Your task to perform on an android device: Add razer huntsman to the cart on costco, then select checkout. Image 0: 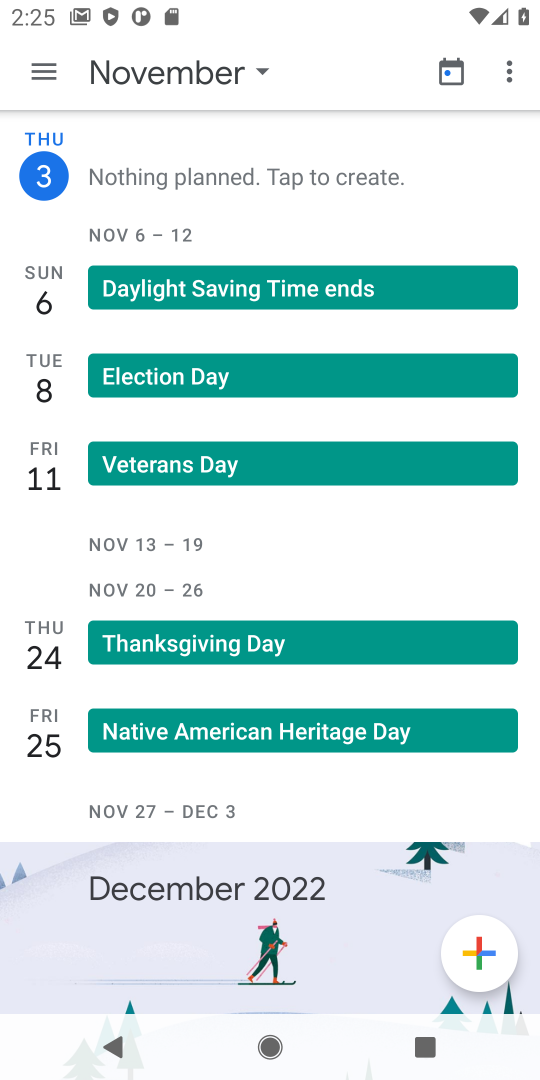
Step 0: press home button
Your task to perform on an android device: Add razer huntsman to the cart on costco, then select checkout. Image 1: 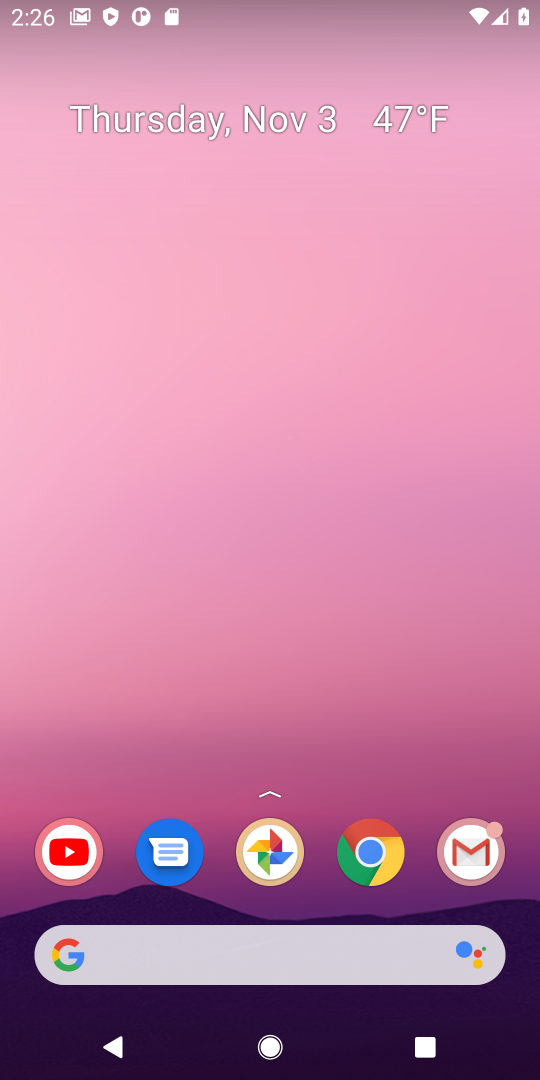
Step 1: click (364, 862)
Your task to perform on an android device: Add razer huntsman to the cart on costco, then select checkout. Image 2: 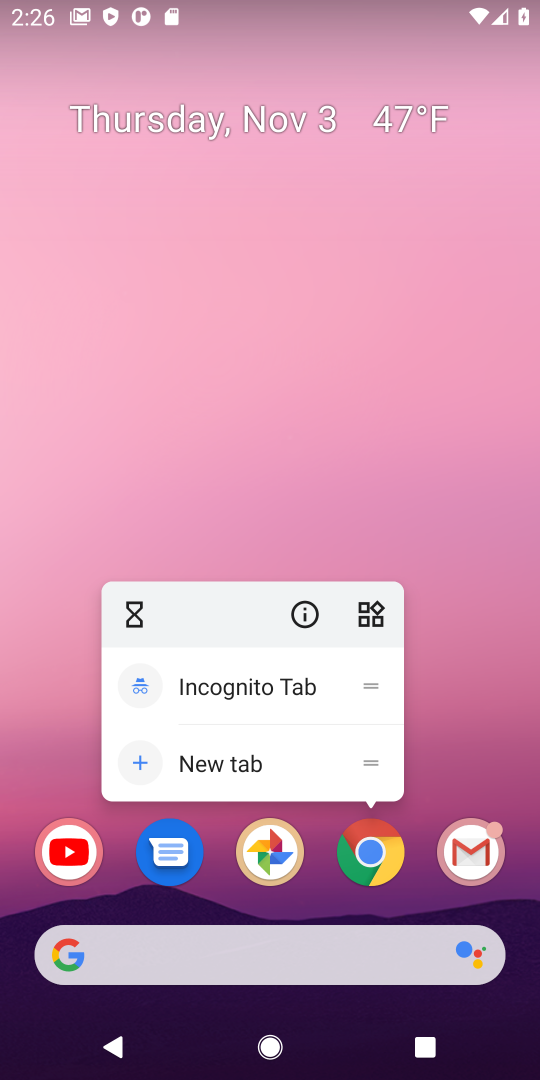
Step 2: click (383, 867)
Your task to perform on an android device: Add razer huntsman to the cart on costco, then select checkout. Image 3: 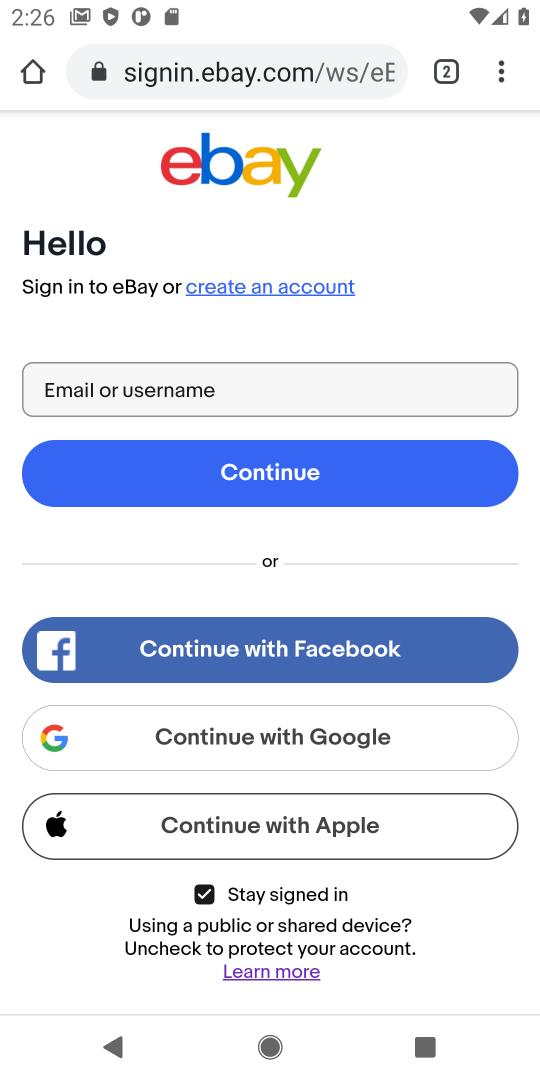
Step 3: click (219, 85)
Your task to perform on an android device: Add razer huntsman to the cart on costco, then select checkout. Image 4: 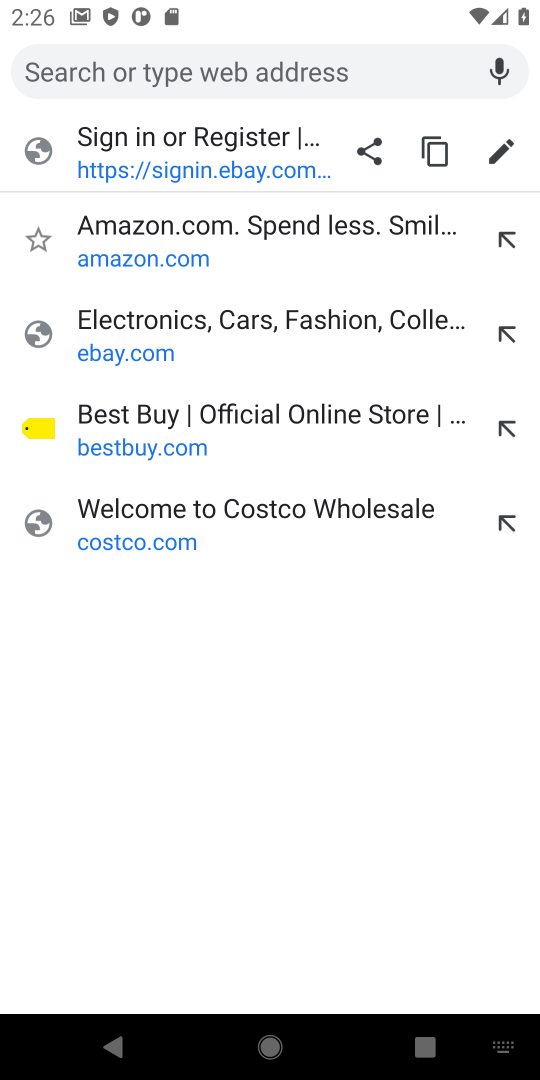
Step 4: click (123, 550)
Your task to perform on an android device: Add razer huntsman to the cart on costco, then select checkout. Image 5: 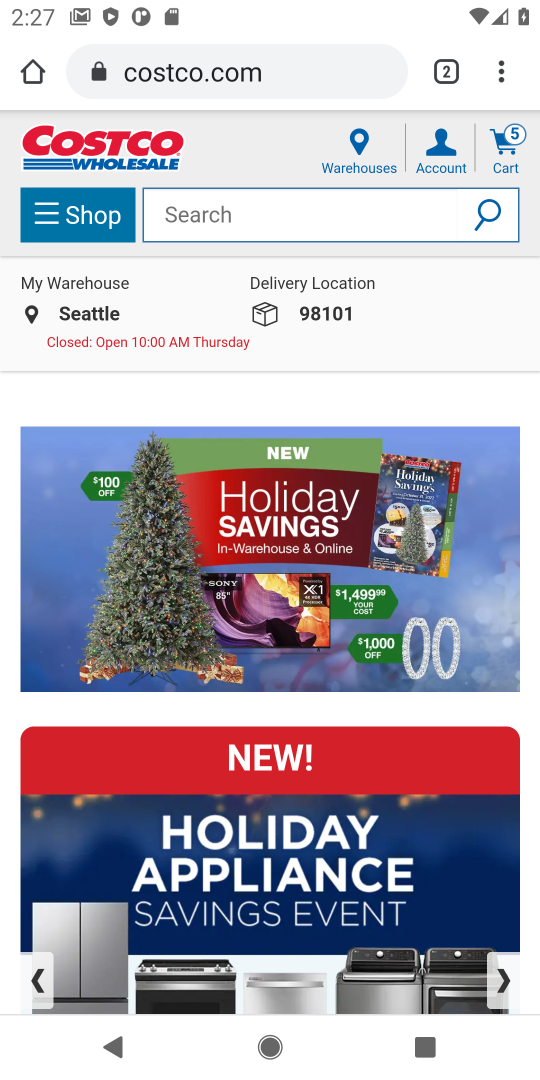
Step 5: click (202, 220)
Your task to perform on an android device: Add razer huntsman to the cart on costco, then select checkout. Image 6: 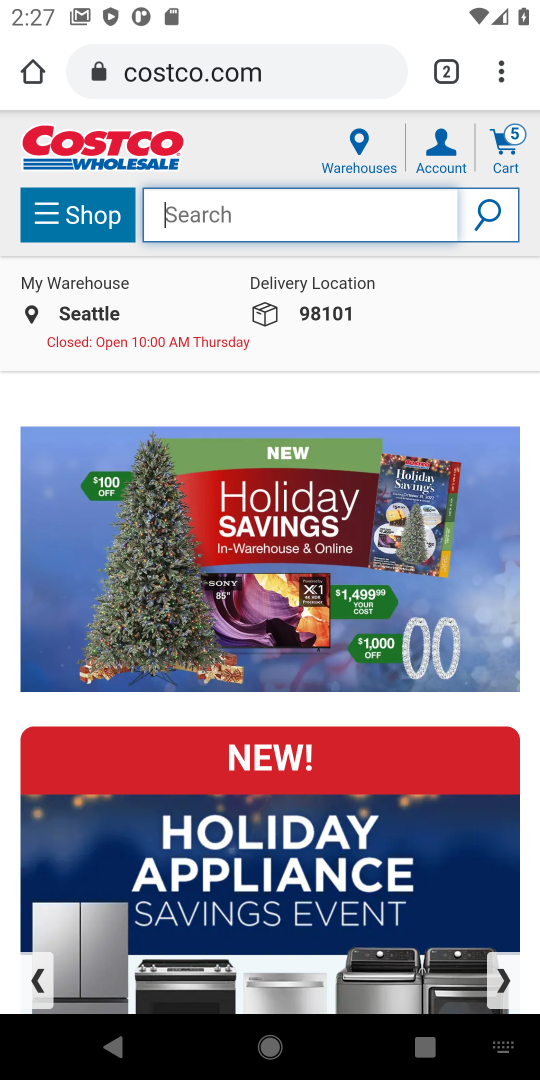
Step 6: type "razer huntsman "
Your task to perform on an android device: Add razer huntsman to the cart on costco, then select checkout. Image 7: 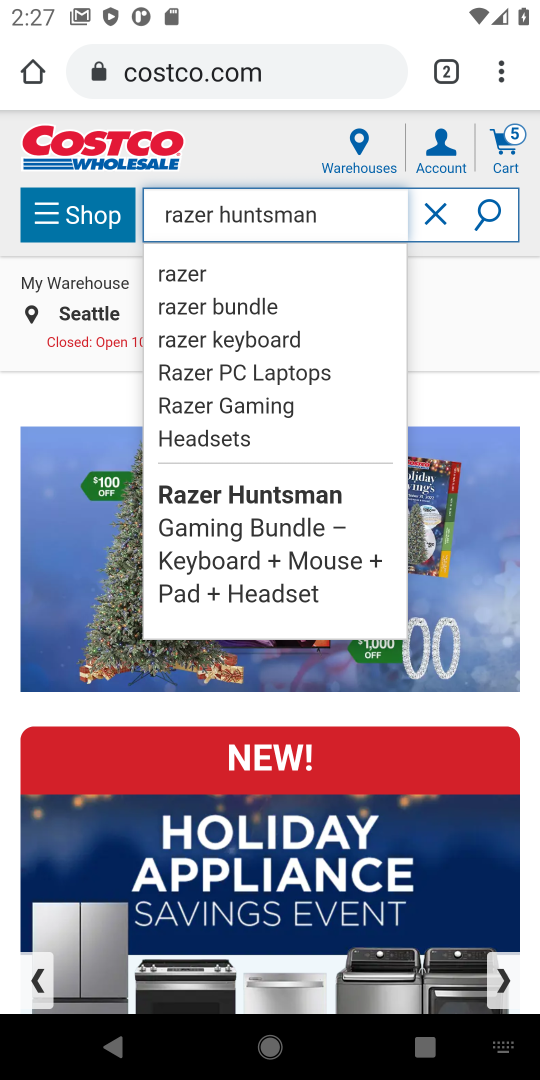
Step 7: click (284, 491)
Your task to perform on an android device: Add razer huntsman to the cart on costco, then select checkout. Image 8: 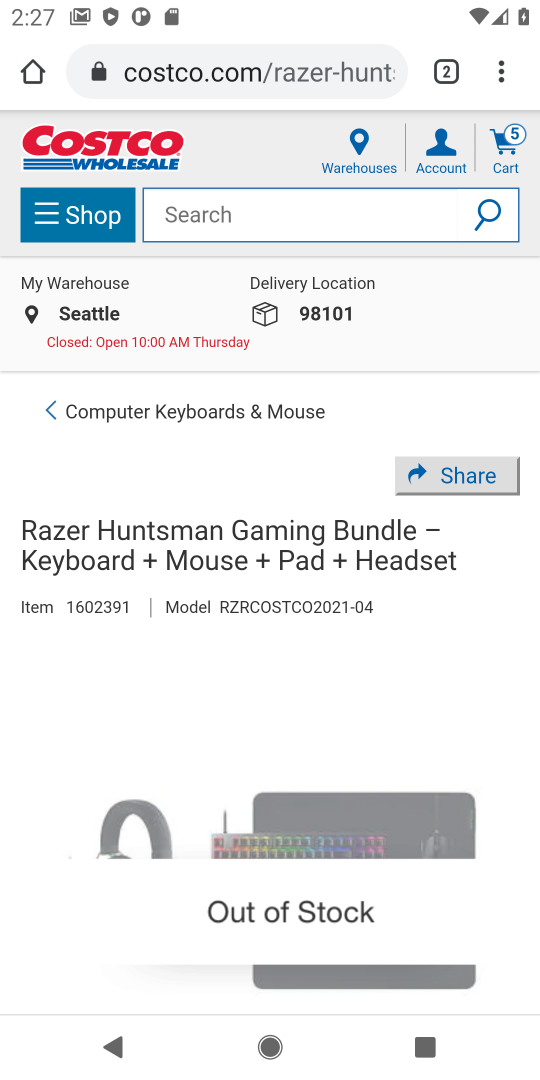
Step 8: drag from (282, 667) to (295, 346)
Your task to perform on an android device: Add razer huntsman to the cart on costco, then select checkout. Image 9: 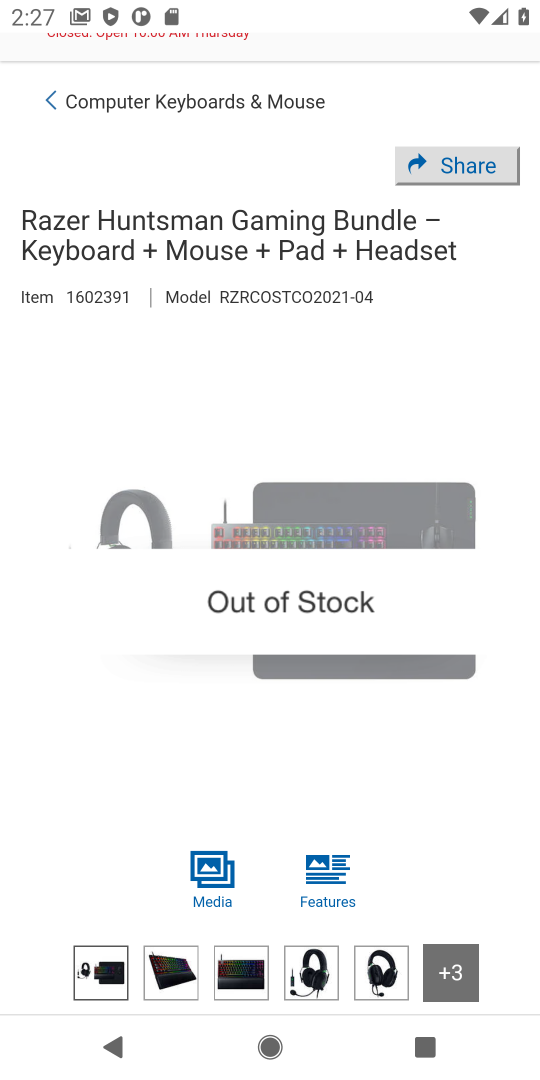
Step 9: drag from (249, 798) to (246, 324)
Your task to perform on an android device: Add razer huntsman to the cart on costco, then select checkout. Image 10: 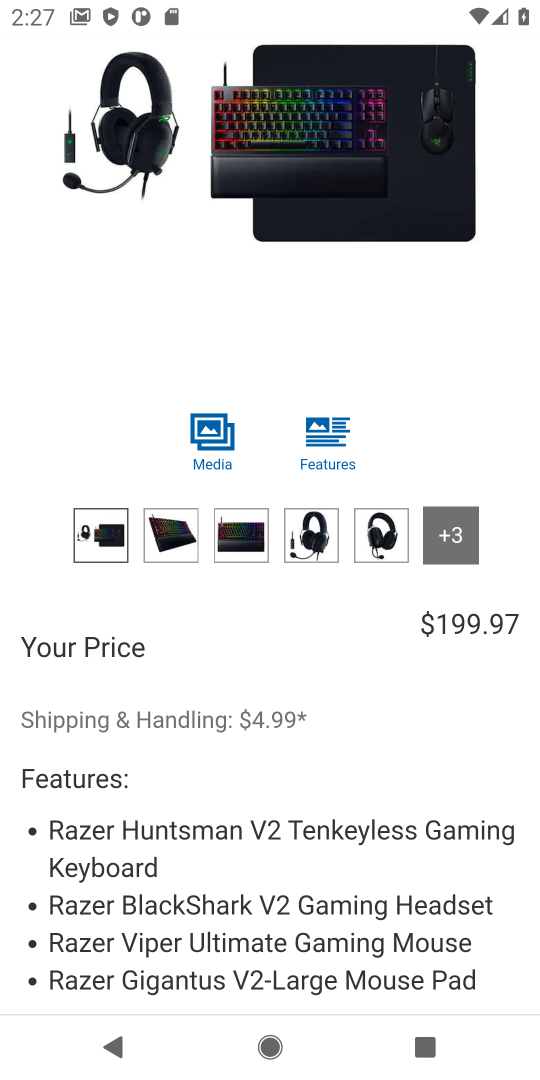
Step 10: drag from (274, 863) to (271, 259)
Your task to perform on an android device: Add razer huntsman to the cart on costco, then select checkout. Image 11: 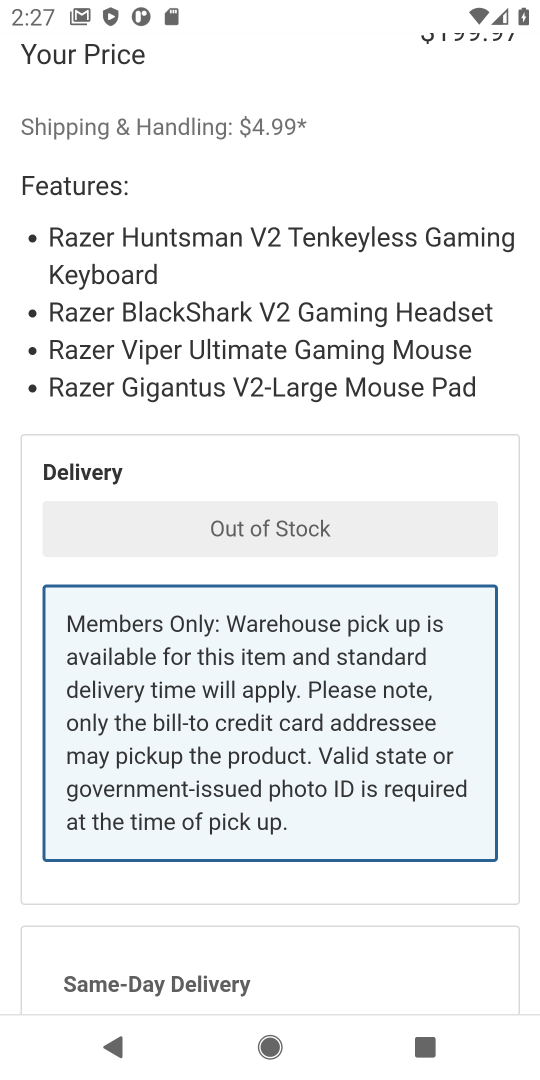
Step 11: drag from (288, 658) to (299, 264)
Your task to perform on an android device: Add razer huntsman to the cart on costco, then select checkout. Image 12: 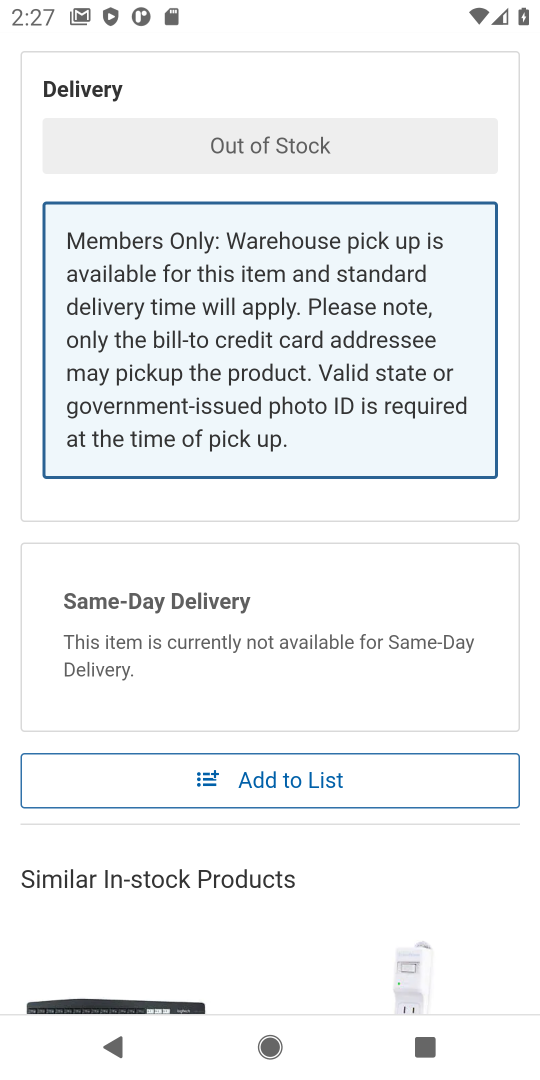
Step 12: press back button
Your task to perform on an android device: Add razer huntsman to the cart on costco, then select checkout. Image 13: 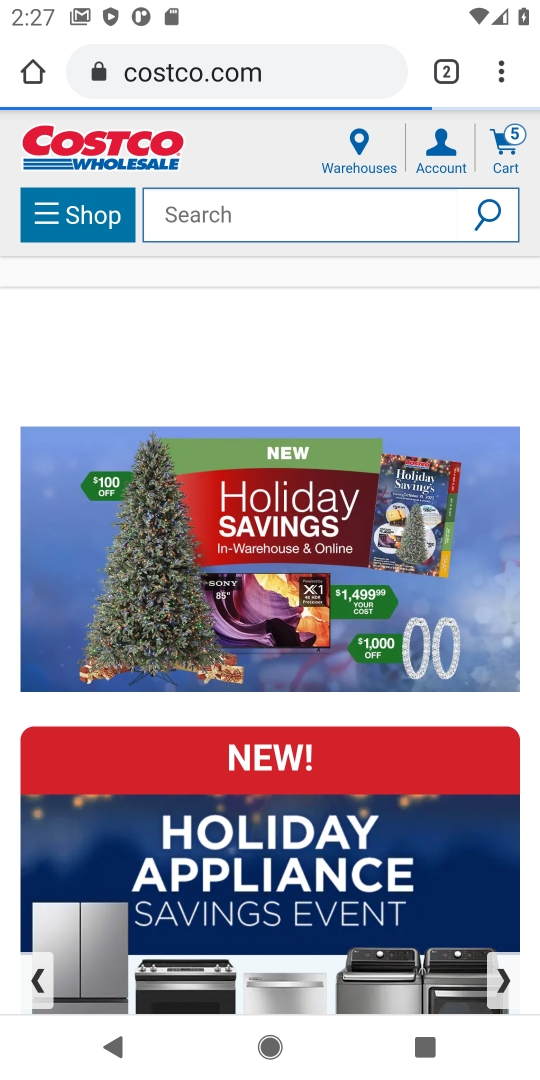
Step 13: click (273, 194)
Your task to perform on an android device: Add razer huntsman to the cart on costco, then select checkout. Image 14: 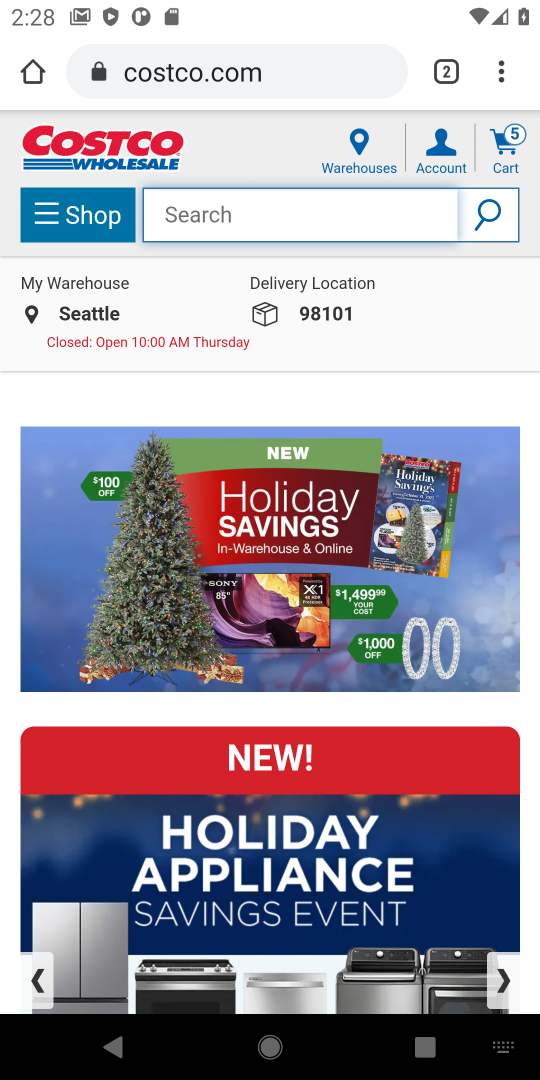
Step 14: type "razer huntsman "
Your task to perform on an android device: Add razer huntsman to the cart on costco, then select checkout. Image 15: 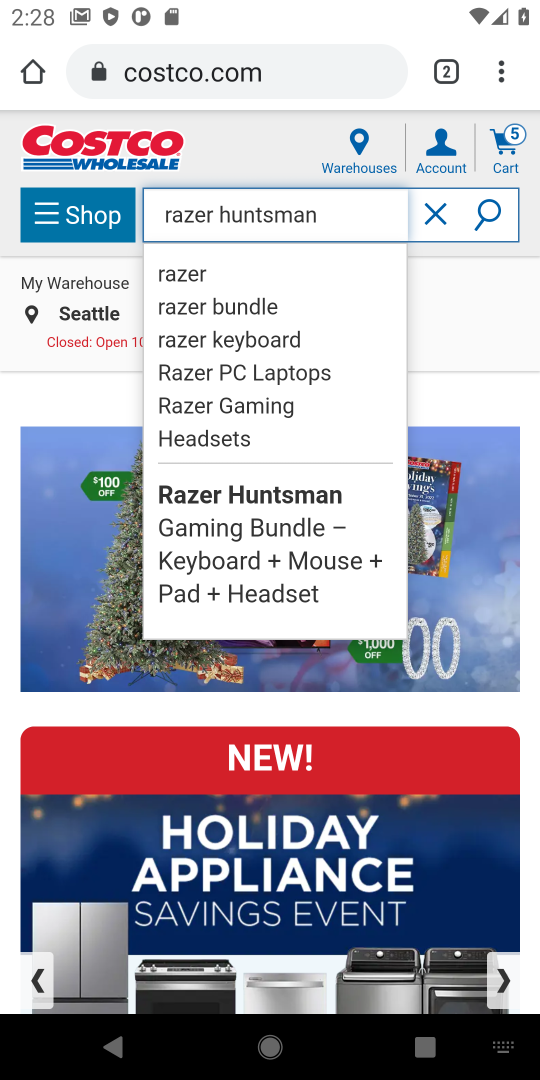
Step 15: click (486, 217)
Your task to perform on an android device: Add razer huntsman to the cart on costco, then select checkout. Image 16: 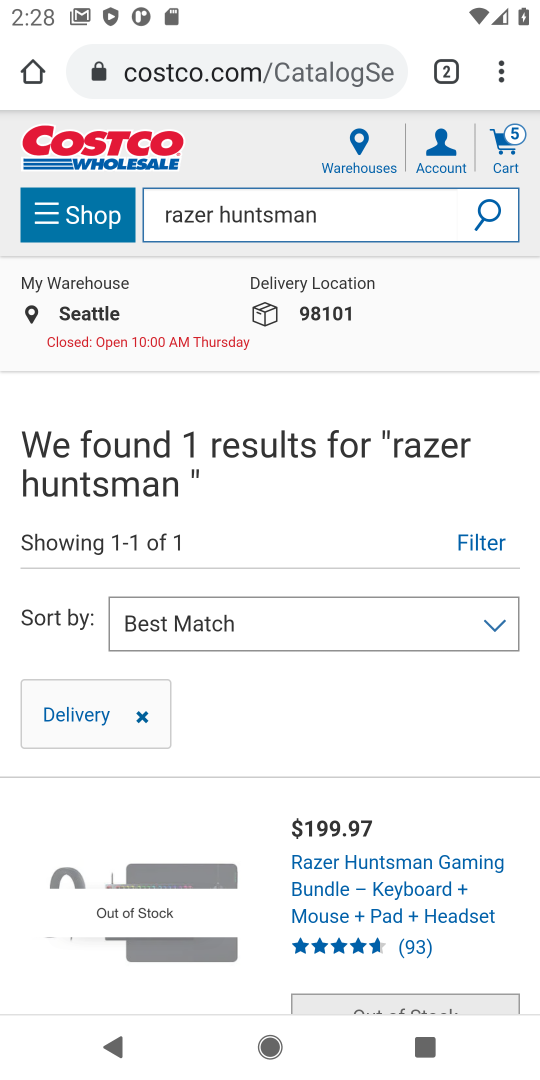
Step 16: task complete